Your task to perform on an android device: Go to Yahoo.com Image 0: 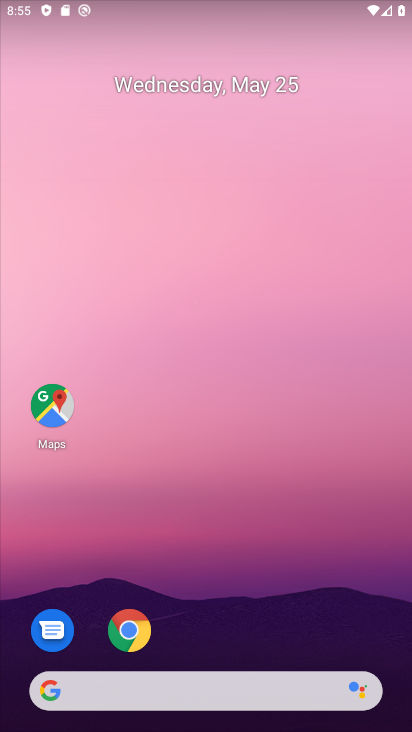
Step 0: click (128, 622)
Your task to perform on an android device: Go to Yahoo.com Image 1: 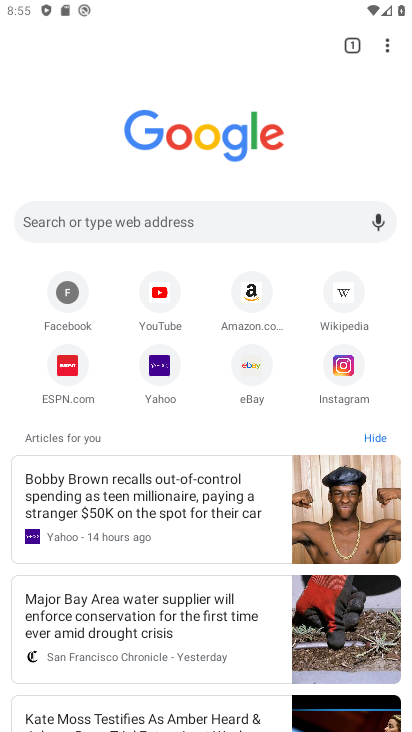
Step 1: click (160, 368)
Your task to perform on an android device: Go to Yahoo.com Image 2: 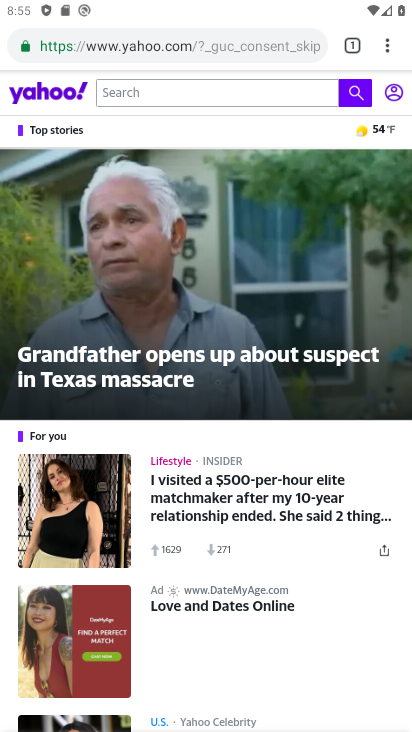
Step 2: task complete